Your task to perform on an android device: make emails show in primary in the gmail app Image 0: 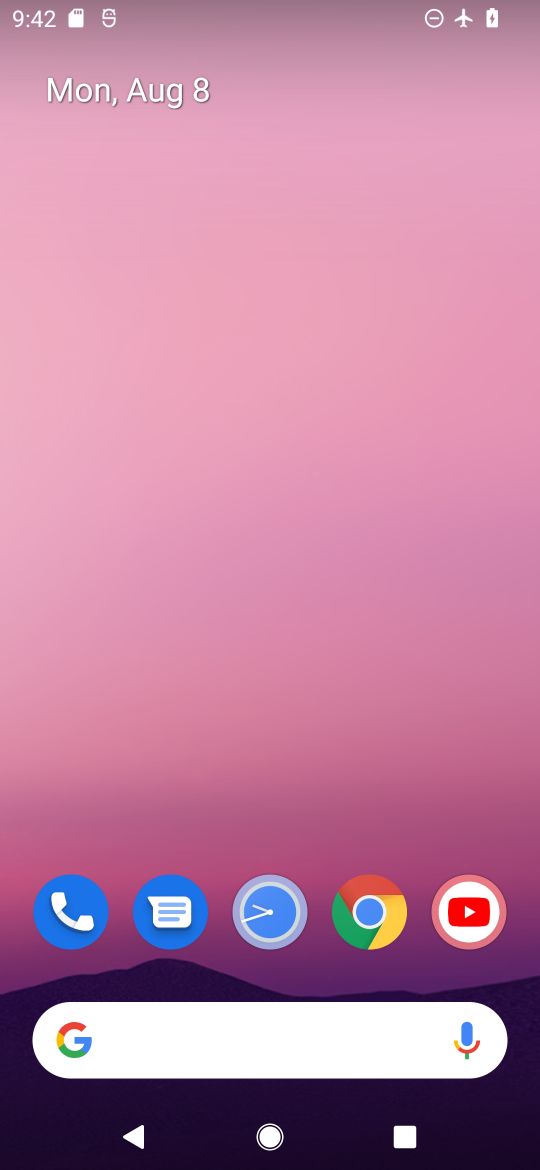
Step 0: drag from (514, 866) to (32, 92)
Your task to perform on an android device: make emails show in primary in the gmail app Image 1: 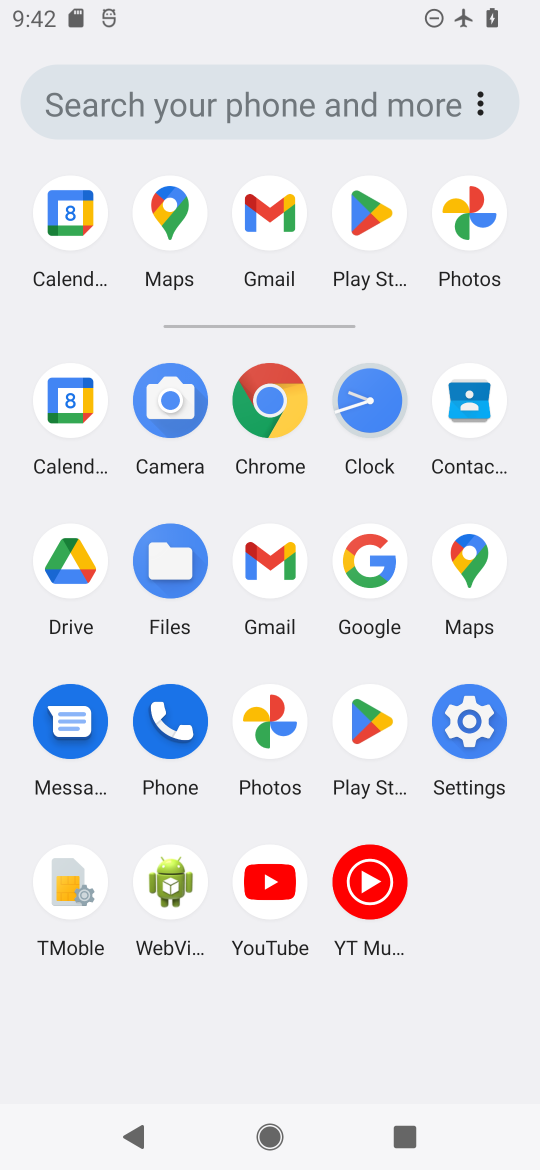
Step 1: click (260, 564)
Your task to perform on an android device: make emails show in primary in the gmail app Image 2: 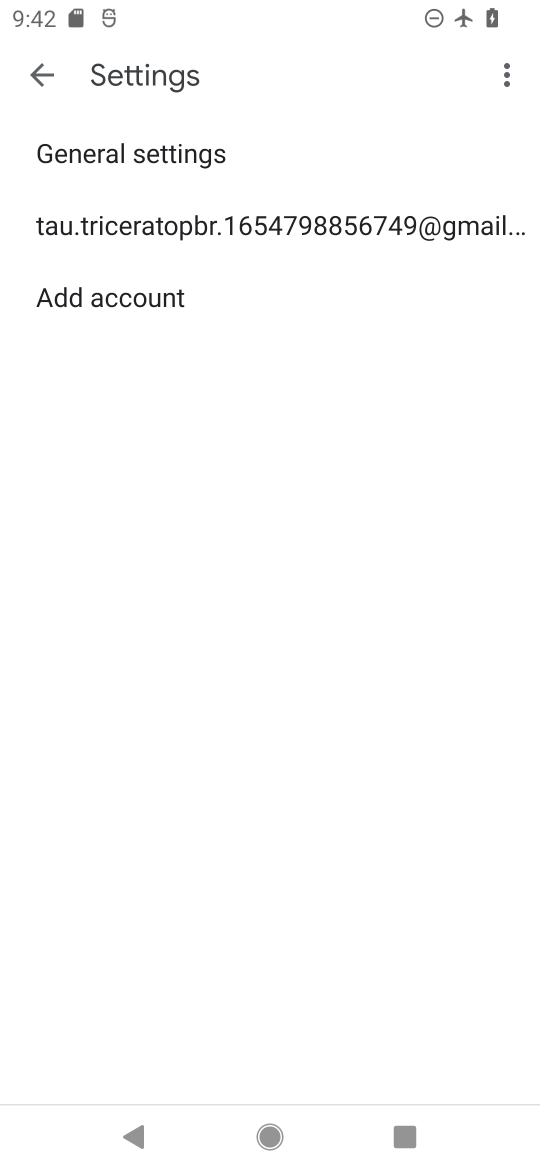
Step 2: task complete